Your task to perform on an android device: toggle priority inbox in the gmail app Image 0: 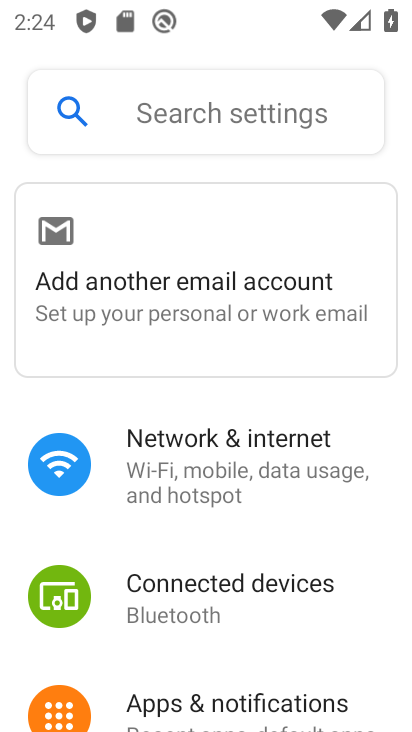
Step 0: press home button
Your task to perform on an android device: toggle priority inbox in the gmail app Image 1: 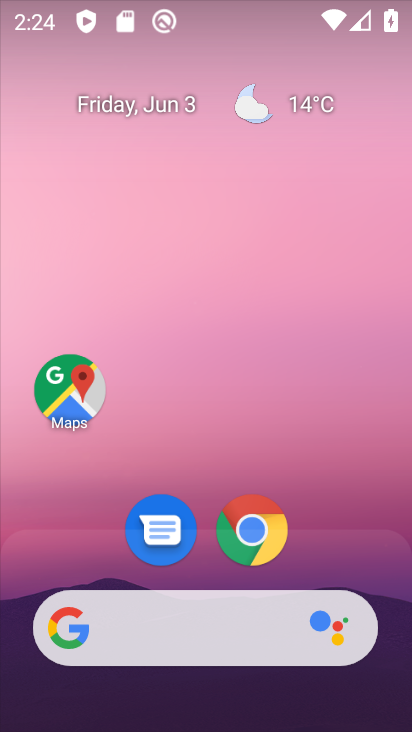
Step 1: drag from (119, 610) to (221, 127)
Your task to perform on an android device: toggle priority inbox in the gmail app Image 2: 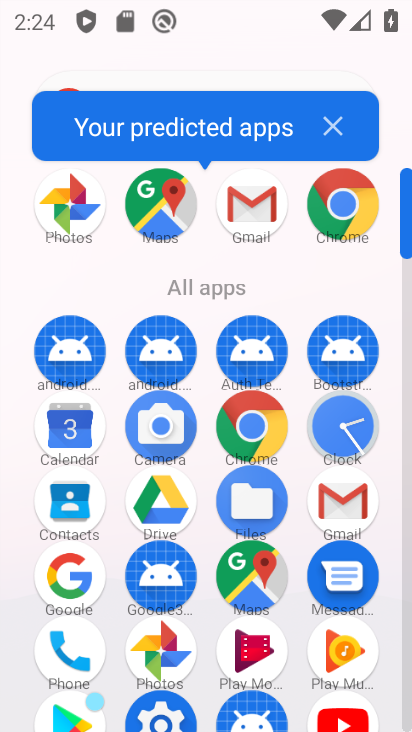
Step 2: click (346, 510)
Your task to perform on an android device: toggle priority inbox in the gmail app Image 3: 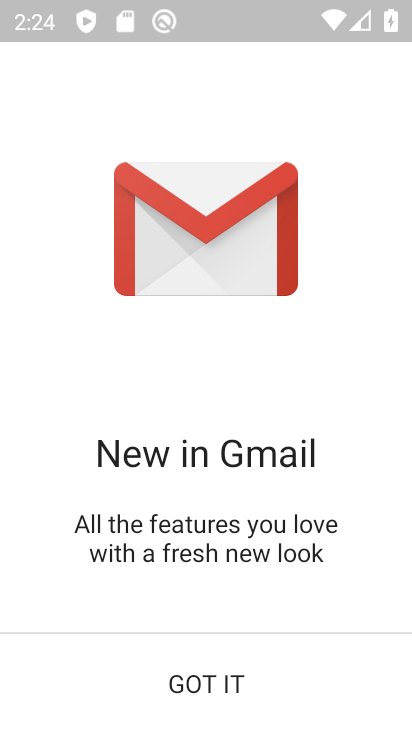
Step 3: click (284, 683)
Your task to perform on an android device: toggle priority inbox in the gmail app Image 4: 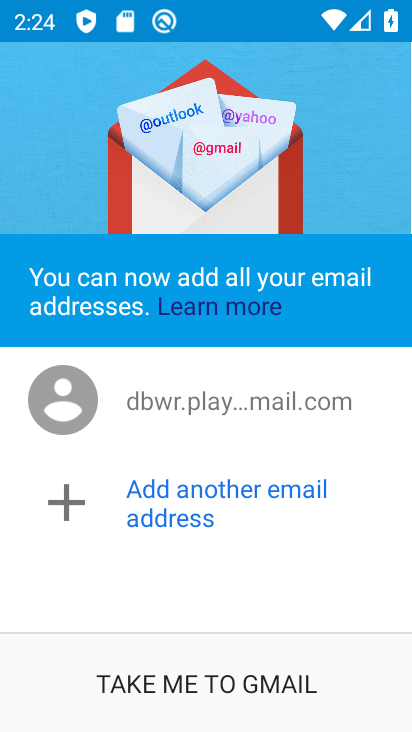
Step 4: click (282, 682)
Your task to perform on an android device: toggle priority inbox in the gmail app Image 5: 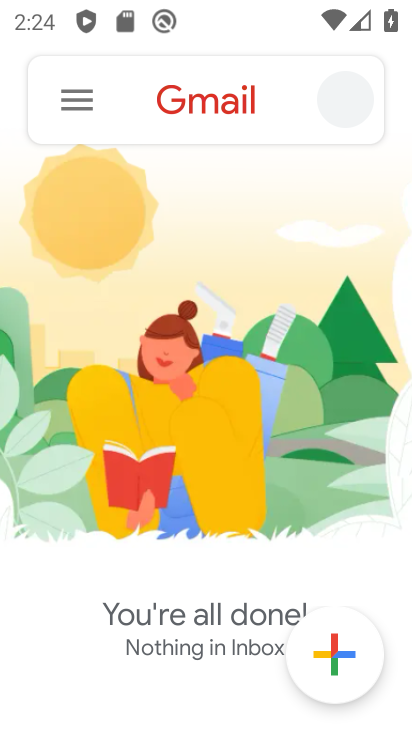
Step 5: click (84, 120)
Your task to perform on an android device: toggle priority inbox in the gmail app Image 6: 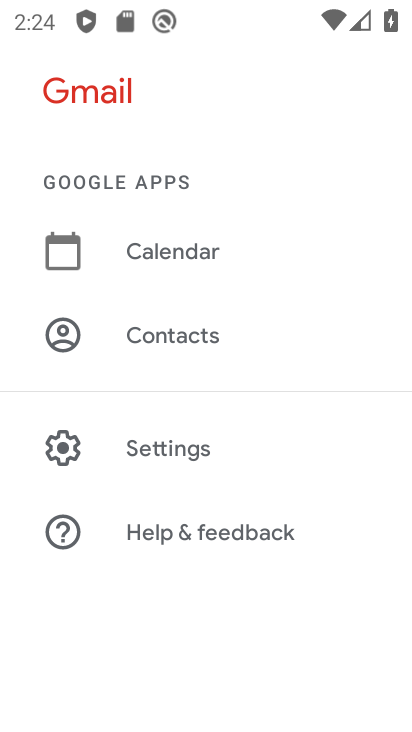
Step 6: drag from (192, 614) to (323, 243)
Your task to perform on an android device: toggle priority inbox in the gmail app Image 7: 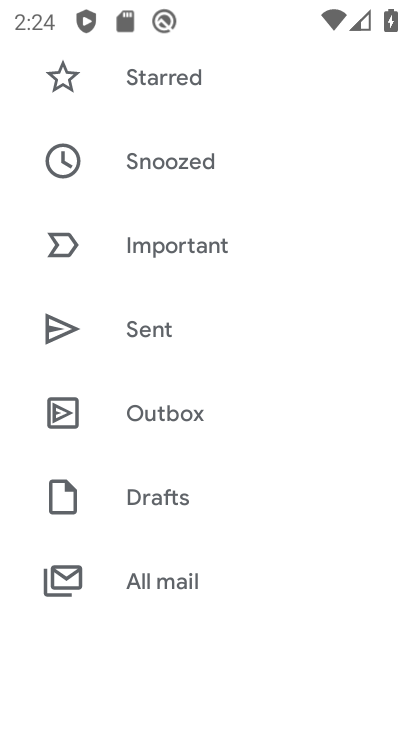
Step 7: drag from (184, 619) to (298, 170)
Your task to perform on an android device: toggle priority inbox in the gmail app Image 8: 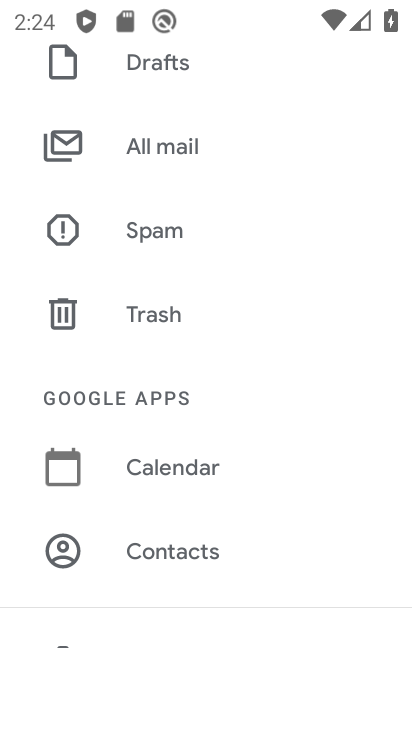
Step 8: drag from (245, 518) to (323, 173)
Your task to perform on an android device: toggle priority inbox in the gmail app Image 9: 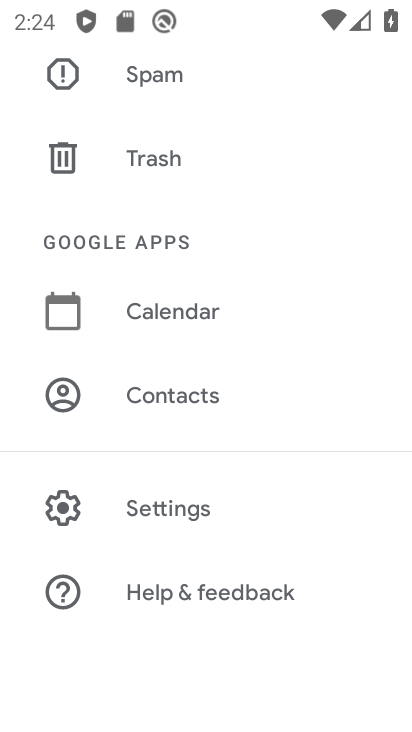
Step 9: click (206, 512)
Your task to perform on an android device: toggle priority inbox in the gmail app Image 10: 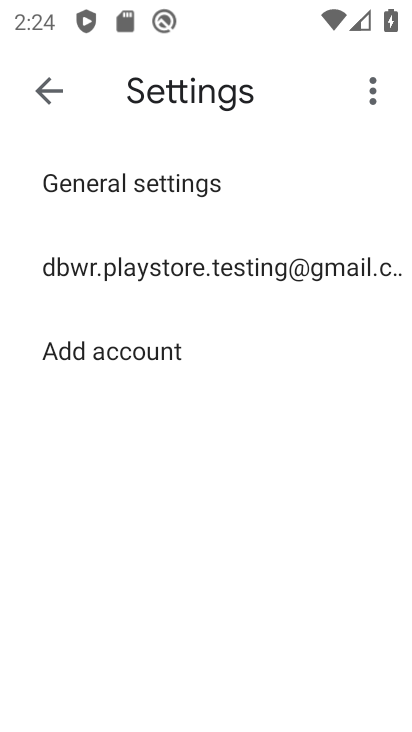
Step 10: drag from (264, 563) to (337, 322)
Your task to perform on an android device: toggle priority inbox in the gmail app Image 11: 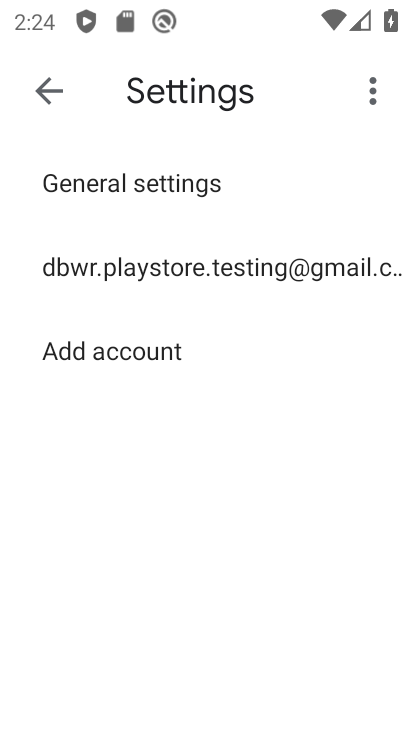
Step 11: click (355, 278)
Your task to perform on an android device: toggle priority inbox in the gmail app Image 12: 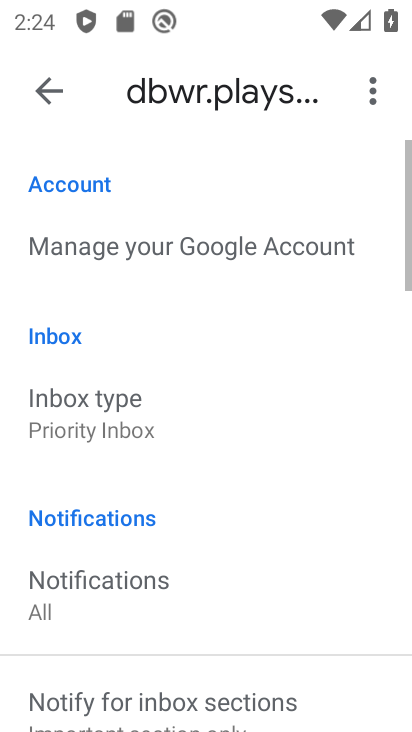
Step 12: drag from (230, 598) to (336, 251)
Your task to perform on an android device: toggle priority inbox in the gmail app Image 13: 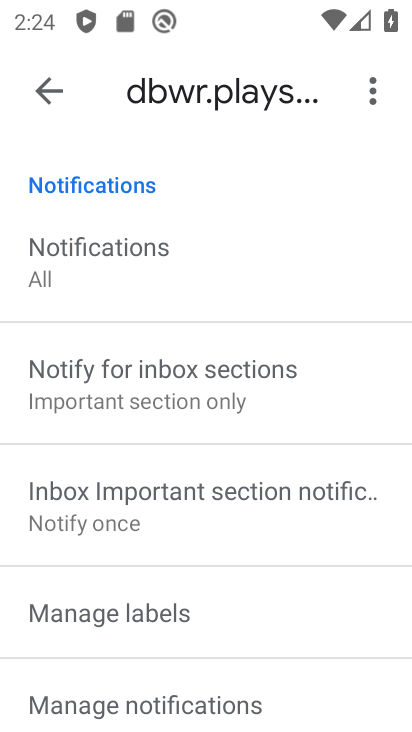
Step 13: drag from (183, 630) to (281, 368)
Your task to perform on an android device: toggle priority inbox in the gmail app Image 14: 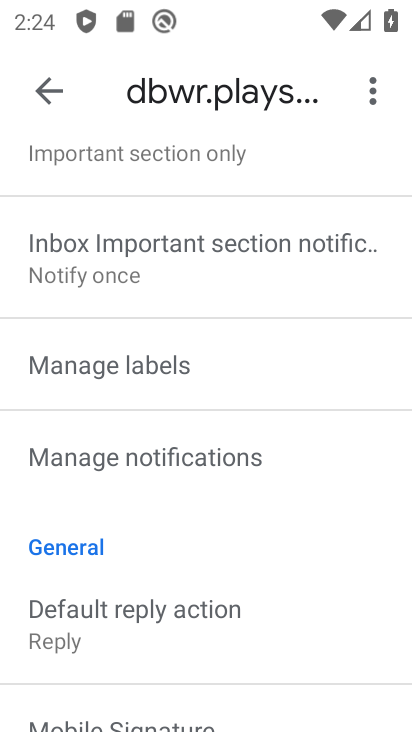
Step 14: drag from (248, 327) to (242, 626)
Your task to perform on an android device: toggle priority inbox in the gmail app Image 15: 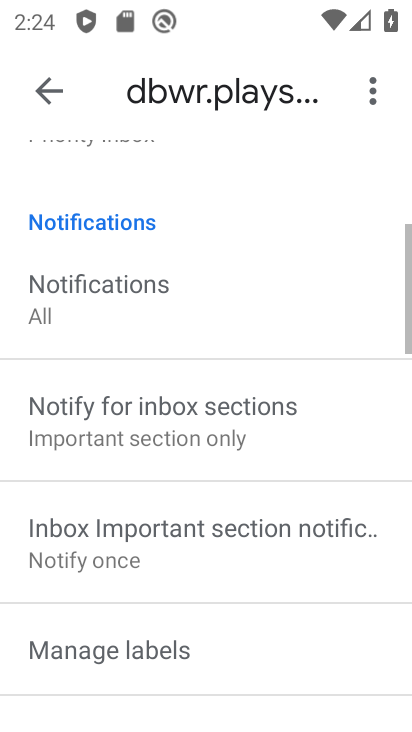
Step 15: drag from (236, 291) to (228, 690)
Your task to perform on an android device: toggle priority inbox in the gmail app Image 16: 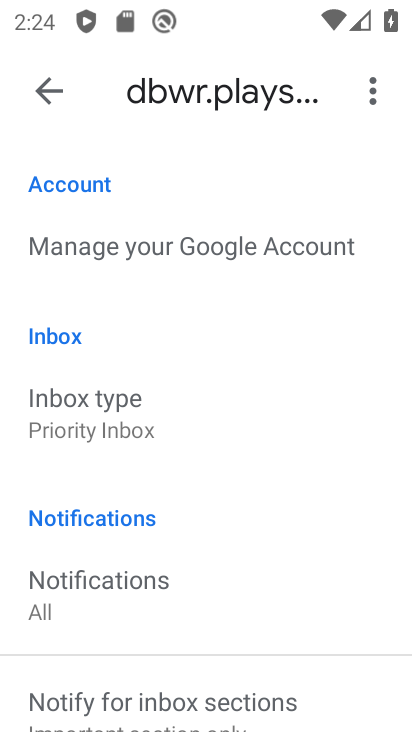
Step 16: drag from (240, 291) to (229, 600)
Your task to perform on an android device: toggle priority inbox in the gmail app Image 17: 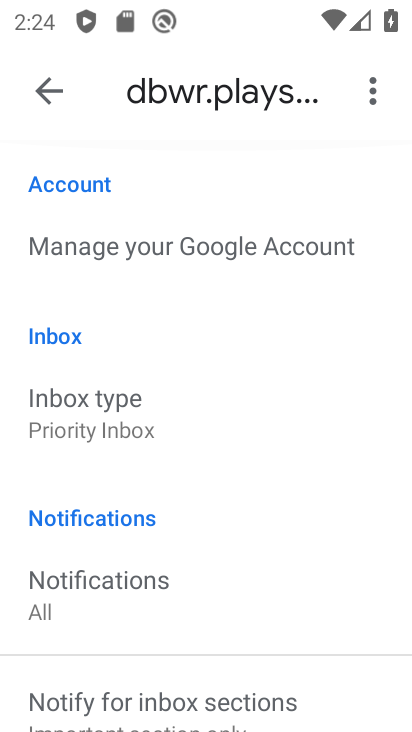
Step 17: click (201, 431)
Your task to perform on an android device: toggle priority inbox in the gmail app Image 18: 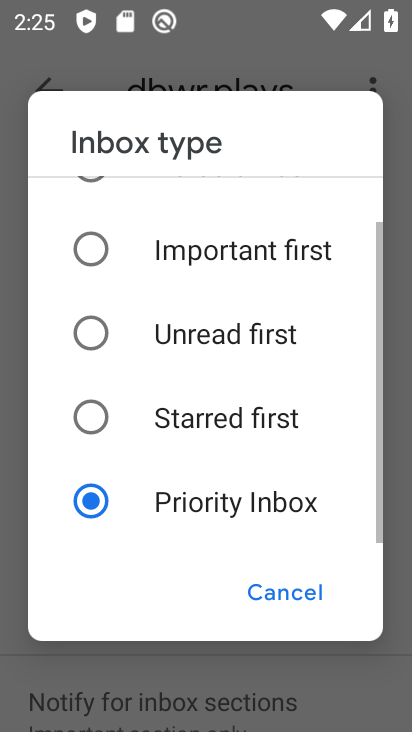
Step 18: drag from (217, 272) to (197, 537)
Your task to perform on an android device: toggle priority inbox in the gmail app Image 19: 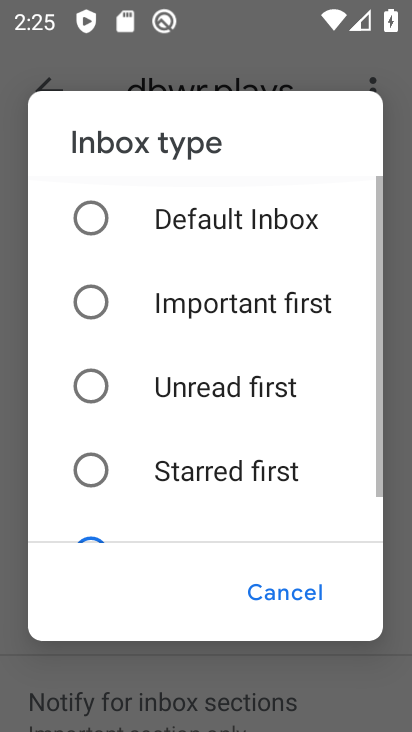
Step 19: click (213, 246)
Your task to perform on an android device: toggle priority inbox in the gmail app Image 20: 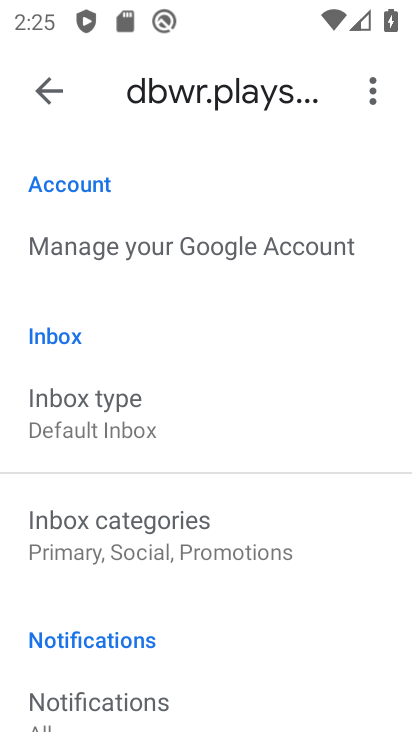
Step 20: task complete